Your task to perform on an android device: snooze an email in the gmail app Image 0: 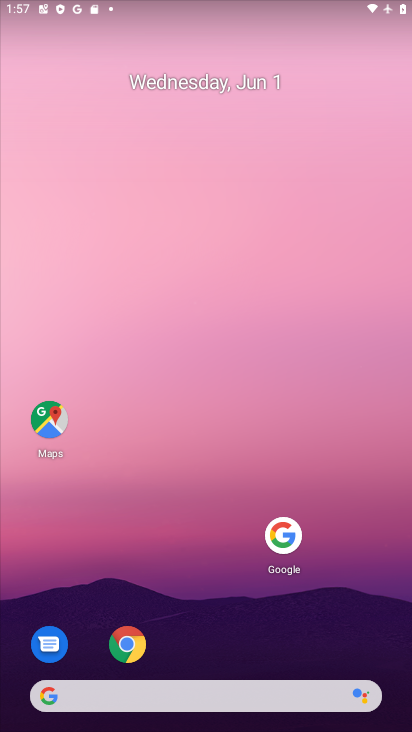
Step 0: press home button
Your task to perform on an android device: snooze an email in the gmail app Image 1: 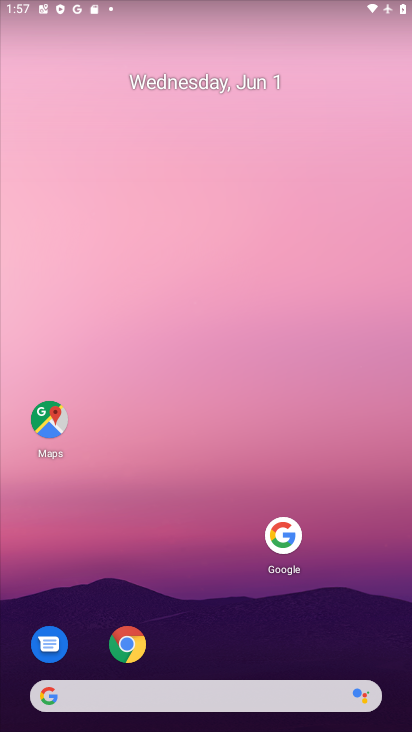
Step 1: drag from (144, 691) to (282, 101)
Your task to perform on an android device: snooze an email in the gmail app Image 2: 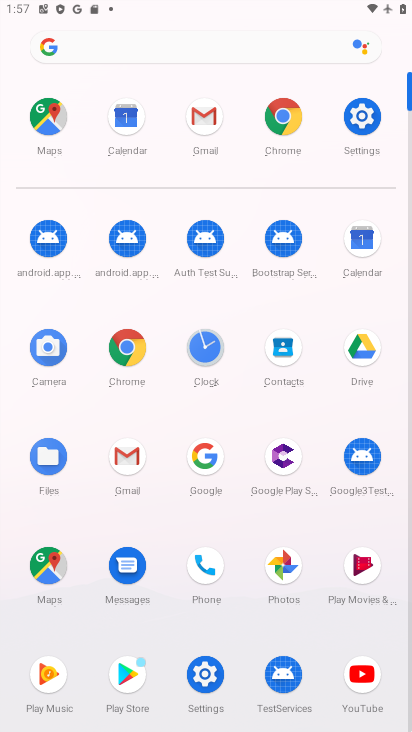
Step 2: click (209, 126)
Your task to perform on an android device: snooze an email in the gmail app Image 3: 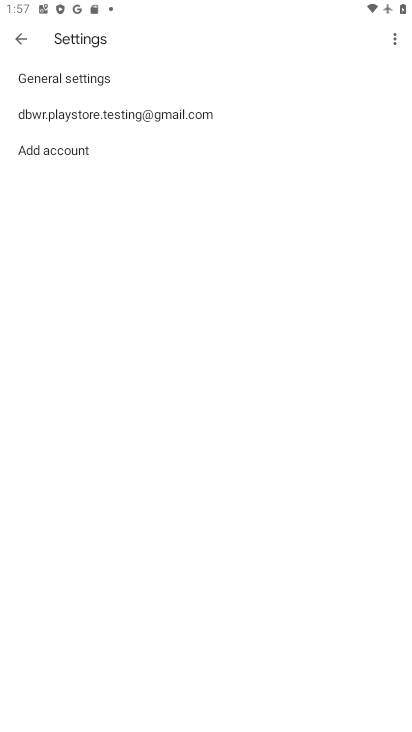
Step 3: click (24, 39)
Your task to perform on an android device: snooze an email in the gmail app Image 4: 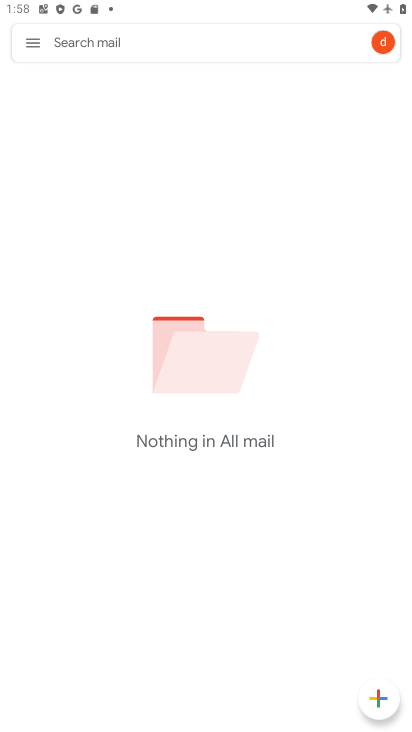
Step 4: task complete